Your task to perform on an android device: Open Chrome and go to settings Image 0: 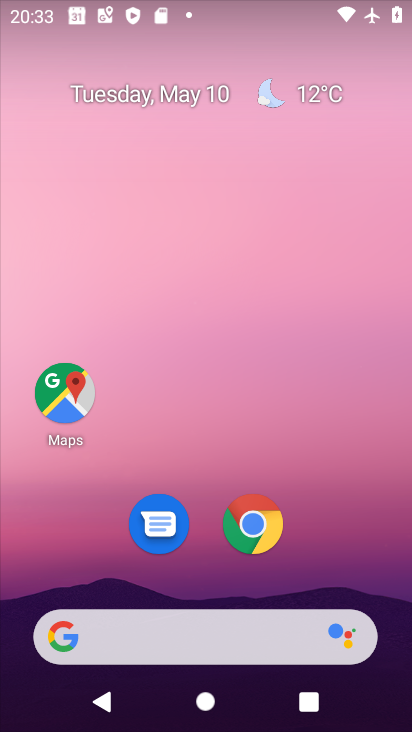
Step 0: click (269, 526)
Your task to perform on an android device: Open Chrome and go to settings Image 1: 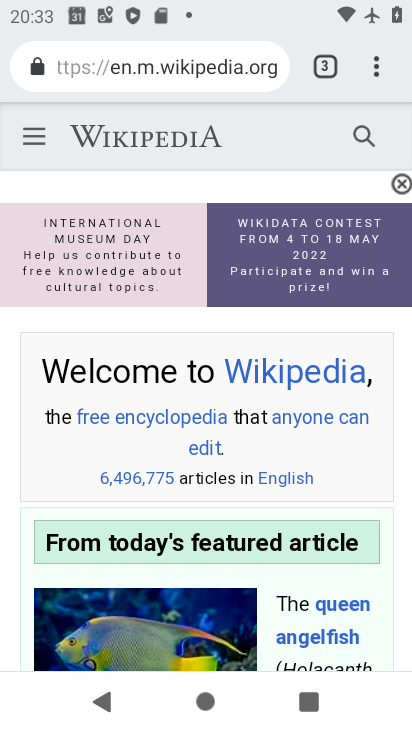
Step 1: click (376, 74)
Your task to perform on an android device: Open Chrome and go to settings Image 2: 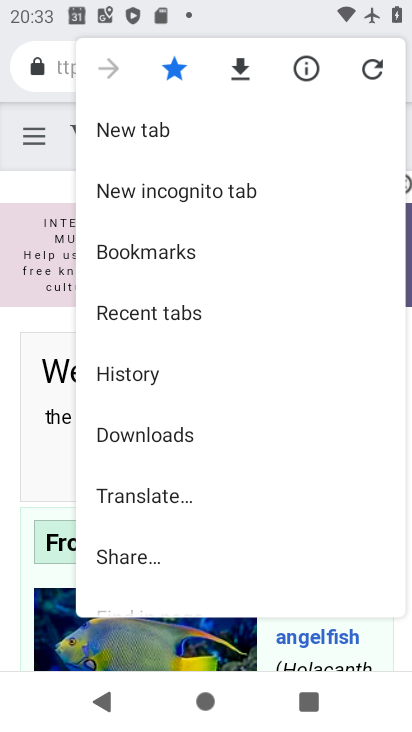
Step 2: drag from (256, 391) to (221, 131)
Your task to perform on an android device: Open Chrome and go to settings Image 3: 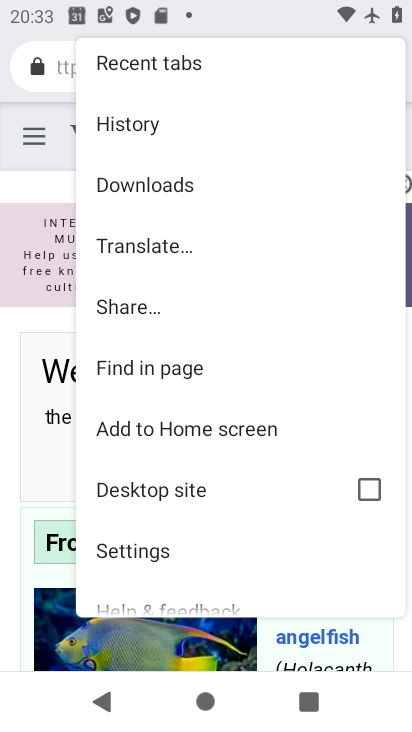
Step 3: click (169, 549)
Your task to perform on an android device: Open Chrome and go to settings Image 4: 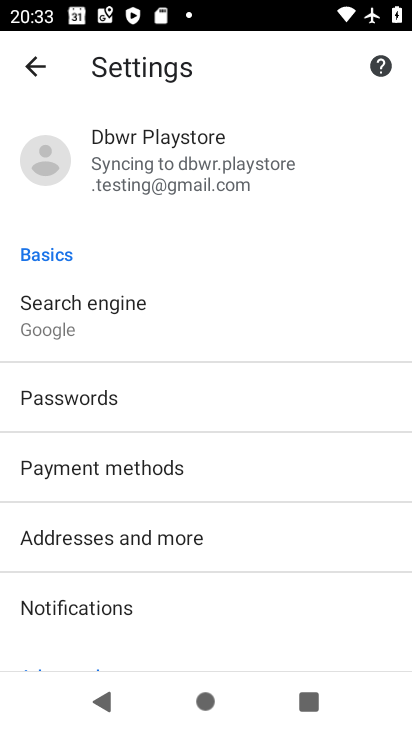
Step 4: task complete